Your task to perform on an android device: turn smart compose on in the gmail app Image 0: 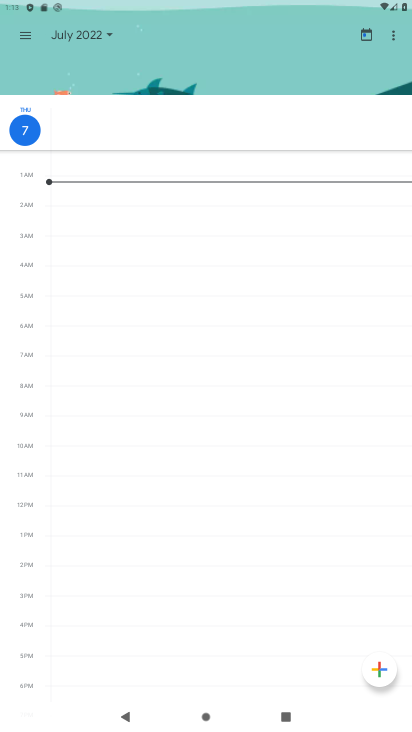
Step 0: press home button
Your task to perform on an android device: turn smart compose on in the gmail app Image 1: 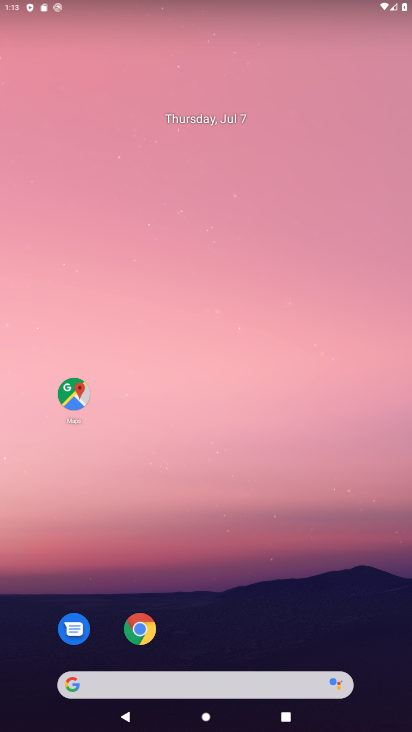
Step 1: drag from (198, 619) to (192, 12)
Your task to perform on an android device: turn smart compose on in the gmail app Image 2: 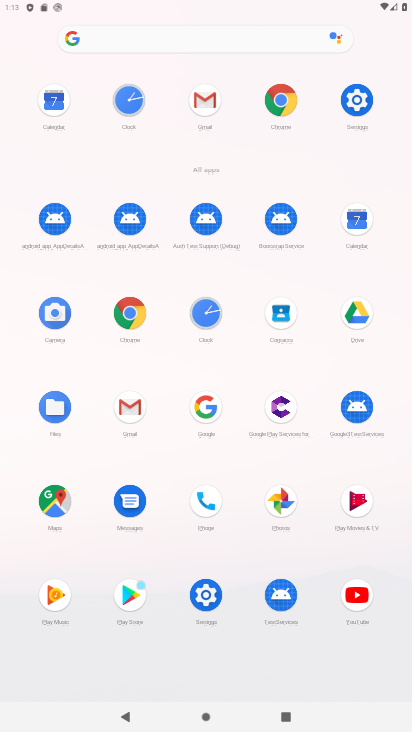
Step 2: click (128, 416)
Your task to perform on an android device: turn smart compose on in the gmail app Image 3: 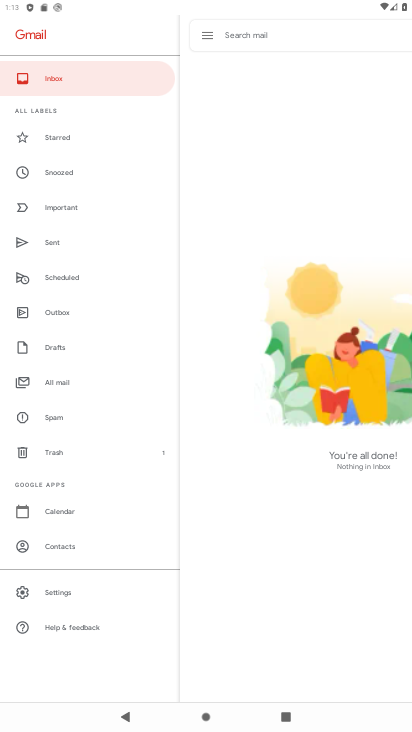
Step 3: click (68, 598)
Your task to perform on an android device: turn smart compose on in the gmail app Image 4: 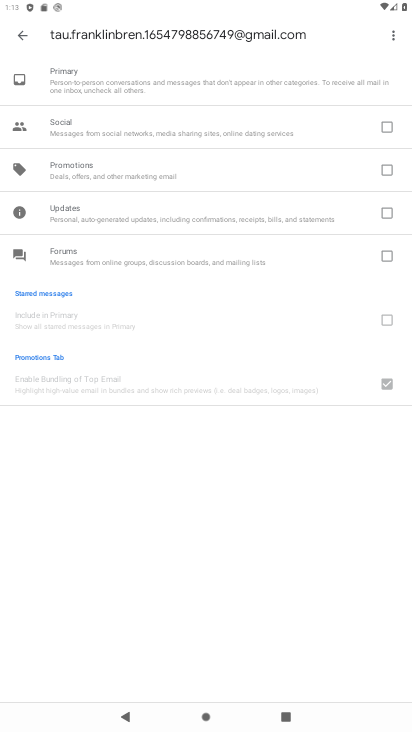
Step 4: click (25, 35)
Your task to perform on an android device: turn smart compose on in the gmail app Image 5: 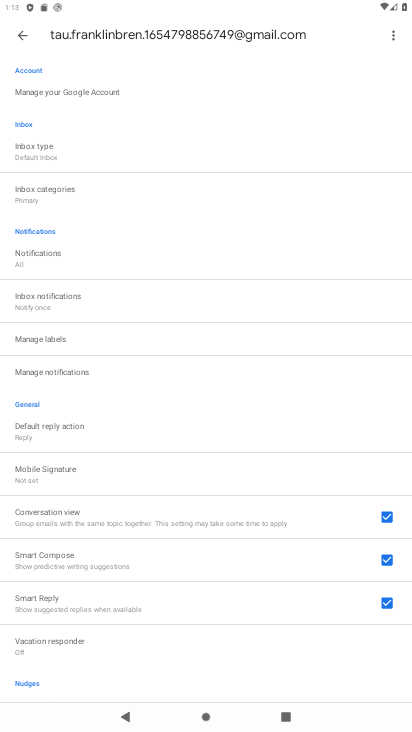
Step 5: task complete